Your task to perform on an android device: change alarm snooze length Image 0: 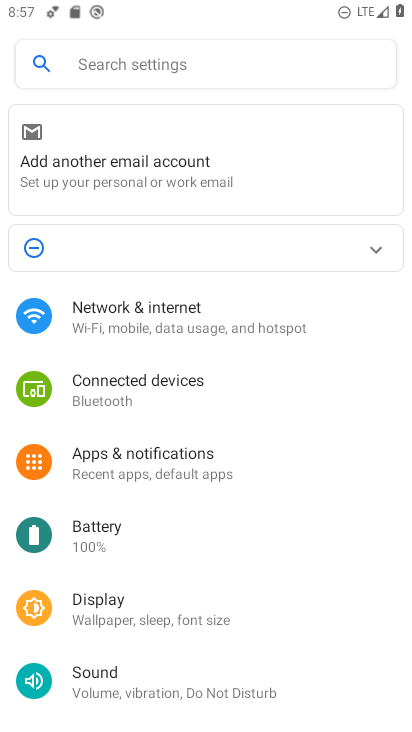
Step 0: press home button
Your task to perform on an android device: change alarm snooze length Image 1: 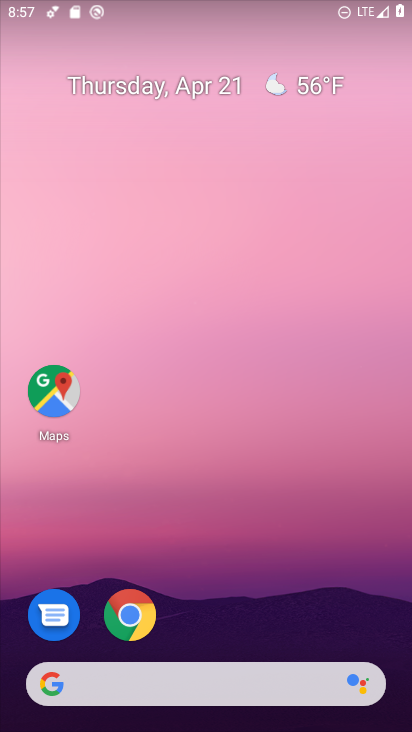
Step 1: drag from (281, 399) to (260, 71)
Your task to perform on an android device: change alarm snooze length Image 2: 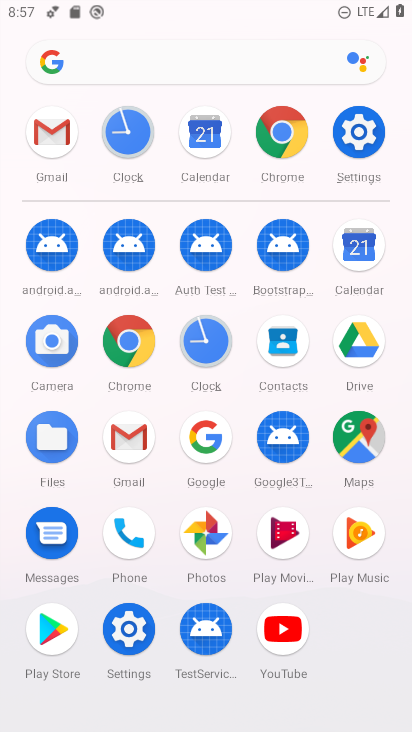
Step 2: click (216, 358)
Your task to perform on an android device: change alarm snooze length Image 3: 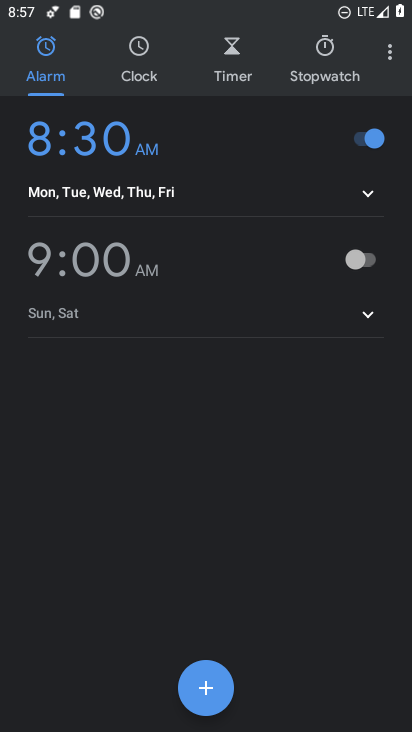
Step 3: click (390, 60)
Your task to perform on an android device: change alarm snooze length Image 4: 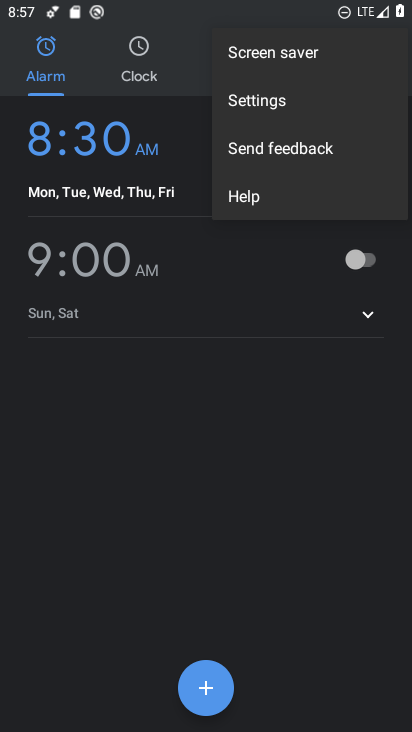
Step 4: click (262, 102)
Your task to perform on an android device: change alarm snooze length Image 5: 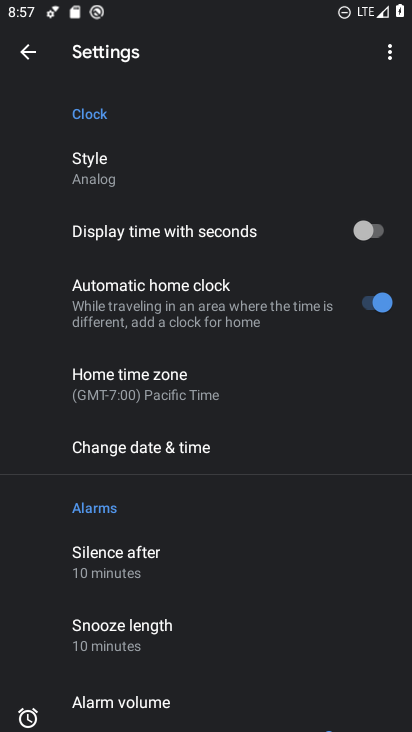
Step 5: click (146, 639)
Your task to perform on an android device: change alarm snooze length Image 6: 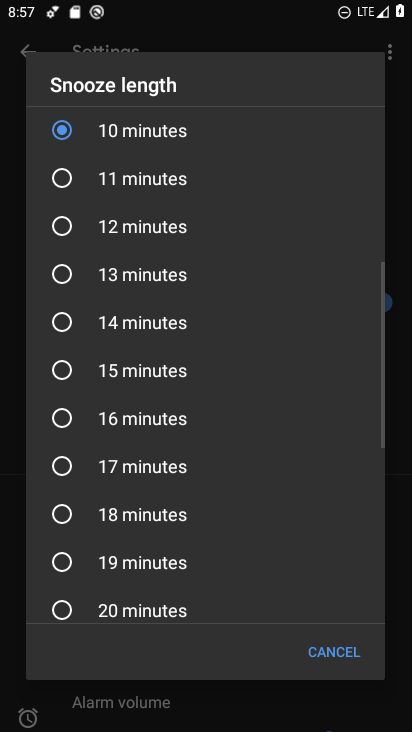
Step 6: click (57, 311)
Your task to perform on an android device: change alarm snooze length Image 7: 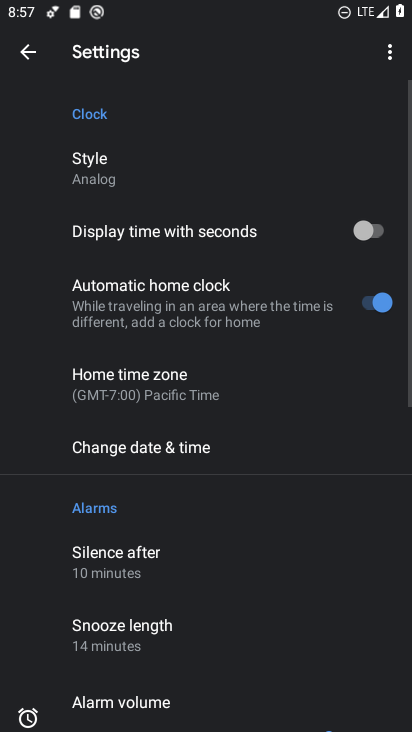
Step 7: task complete